Your task to perform on an android device: Open calendar and show me the first week of next month Image 0: 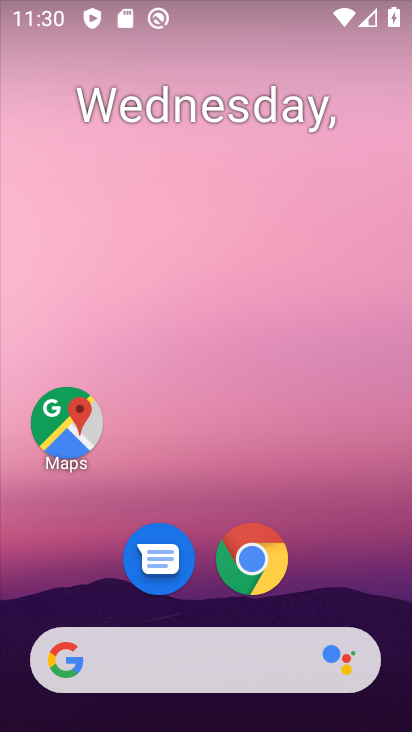
Step 0: drag from (377, 256) to (262, 22)
Your task to perform on an android device: Open calendar and show me the first week of next month Image 1: 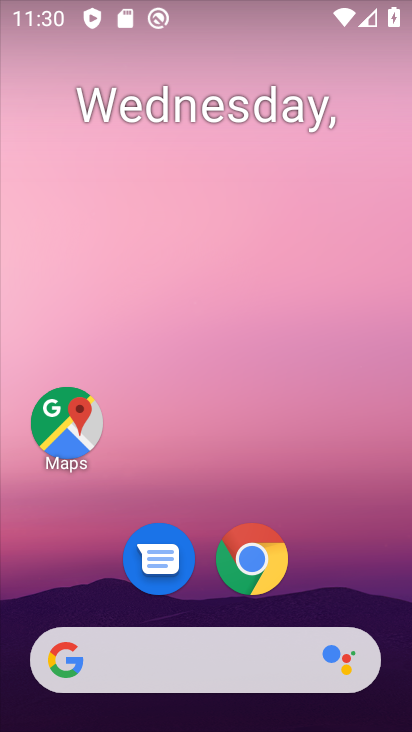
Step 1: drag from (368, 547) to (10, 132)
Your task to perform on an android device: Open calendar and show me the first week of next month Image 2: 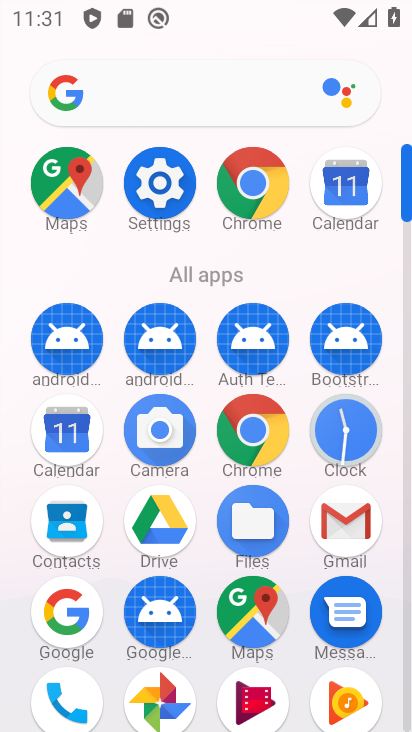
Step 2: click (354, 207)
Your task to perform on an android device: Open calendar and show me the first week of next month Image 3: 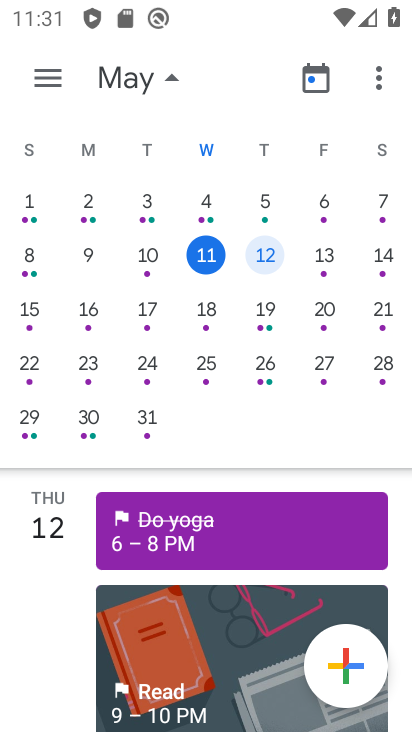
Step 3: drag from (347, 321) to (27, 248)
Your task to perform on an android device: Open calendar and show me the first week of next month Image 4: 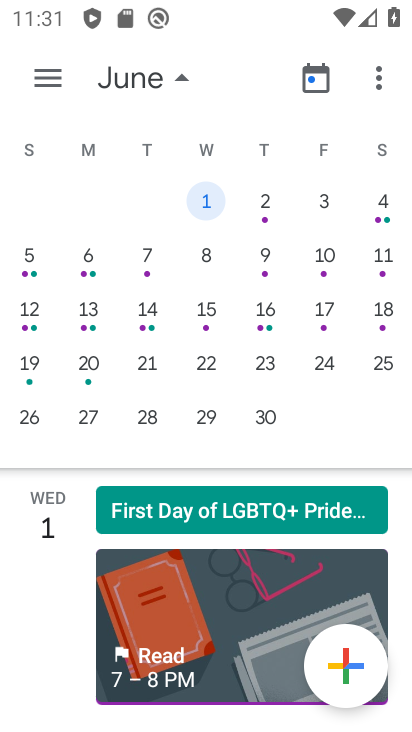
Step 4: click (90, 265)
Your task to perform on an android device: Open calendar and show me the first week of next month Image 5: 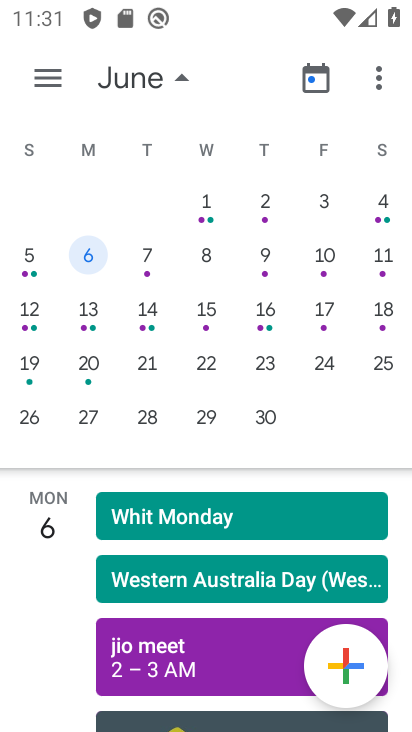
Step 5: task complete